Your task to perform on an android device: toggle wifi Image 0: 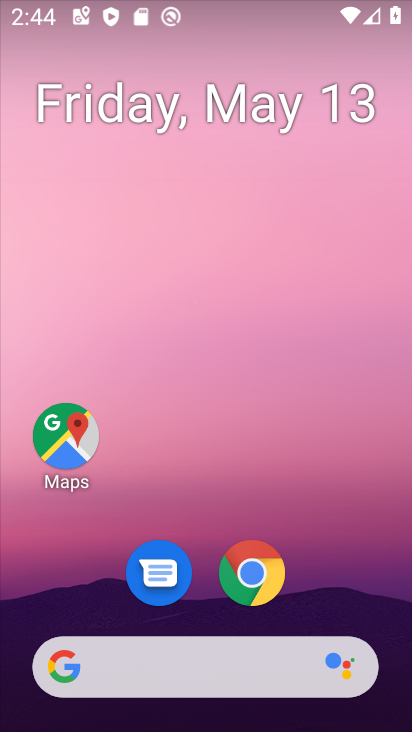
Step 0: drag from (93, 607) to (249, 131)
Your task to perform on an android device: toggle wifi Image 1: 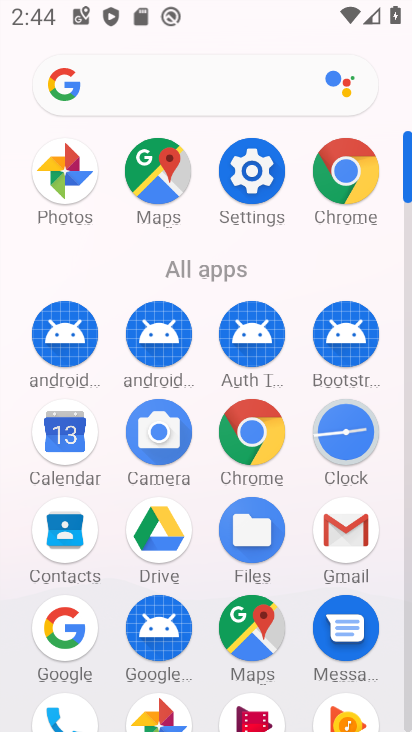
Step 1: drag from (193, 674) to (273, 370)
Your task to perform on an android device: toggle wifi Image 2: 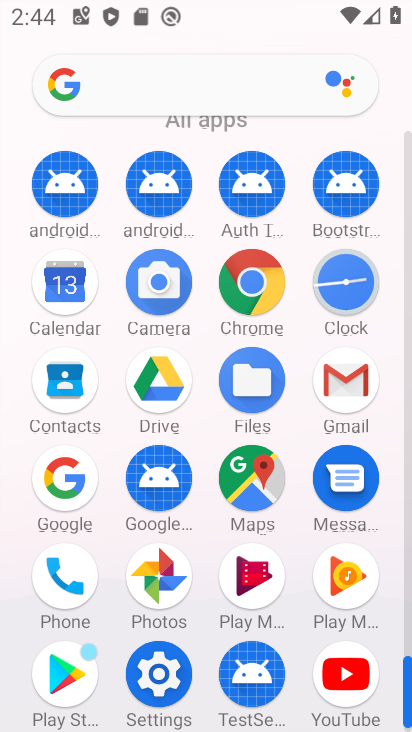
Step 2: click (173, 669)
Your task to perform on an android device: toggle wifi Image 3: 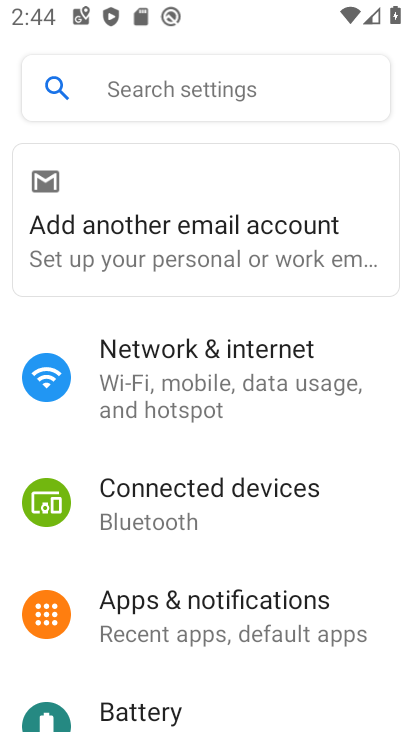
Step 3: click (213, 380)
Your task to perform on an android device: toggle wifi Image 4: 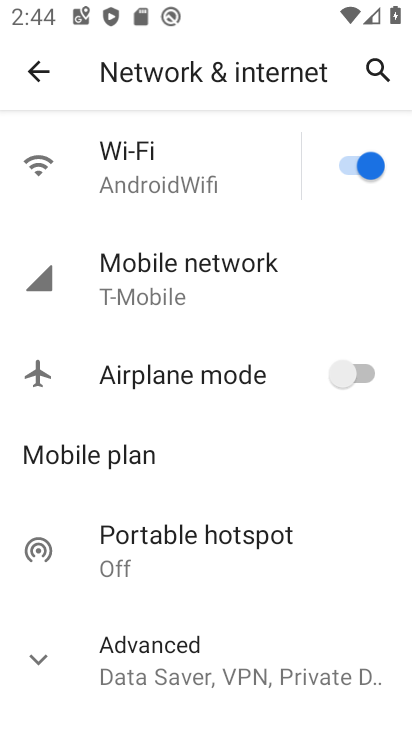
Step 4: click (197, 195)
Your task to perform on an android device: toggle wifi Image 5: 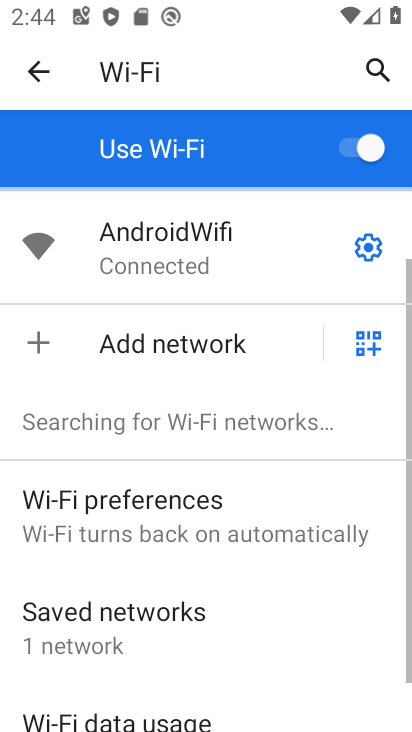
Step 5: click (356, 151)
Your task to perform on an android device: toggle wifi Image 6: 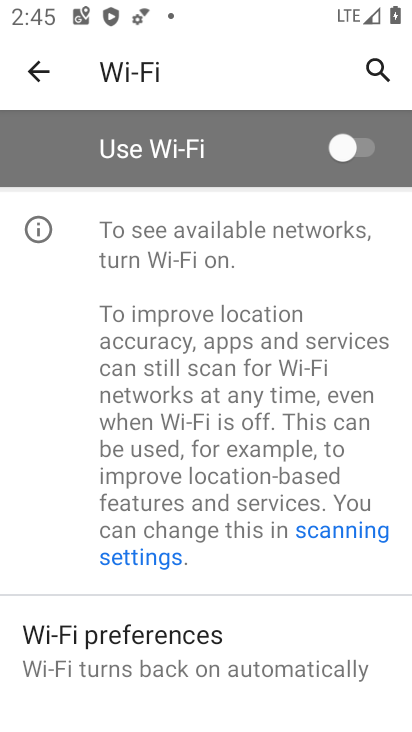
Step 6: task complete